Your task to perform on an android device: Open Reddit.com Image 0: 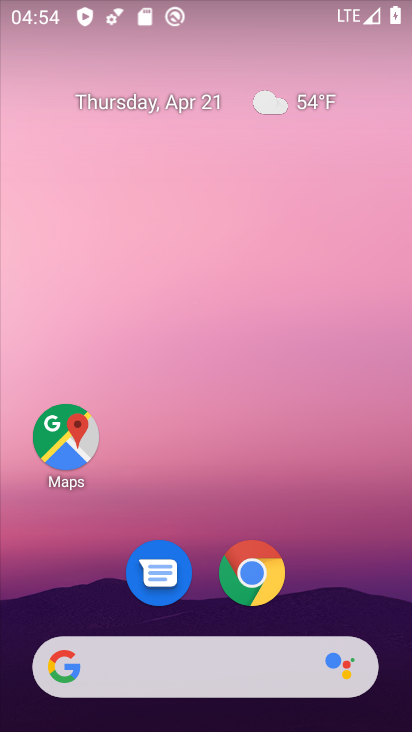
Step 0: click (250, 571)
Your task to perform on an android device: Open Reddit.com Image 1: 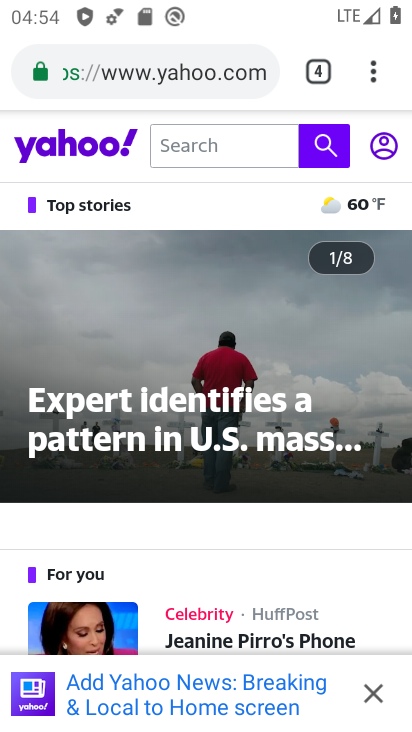
Step 1: click (148, 71)
Your task to perform on an android device: Open Reddit.com Image 2: 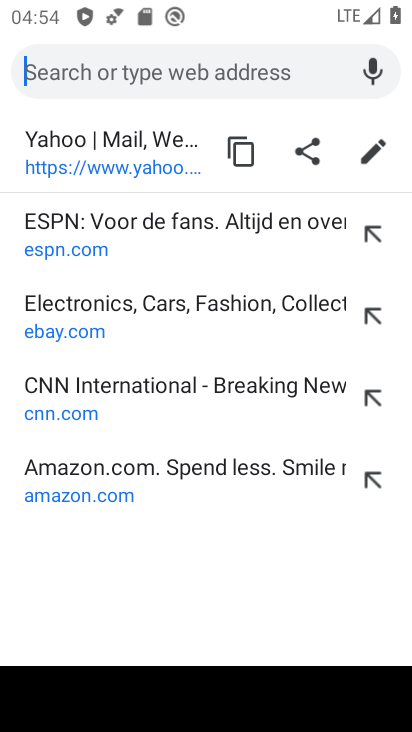
Step 2: type "reddit.com"
Your task to perform on an android device: Open Reddit.com Image 3: 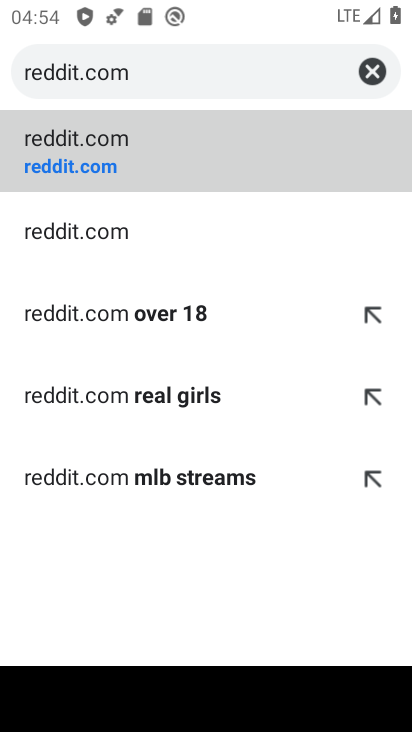
Step 3: click (80, 144)
Your task to perform on an android device: Open Reddit.com Image 4: 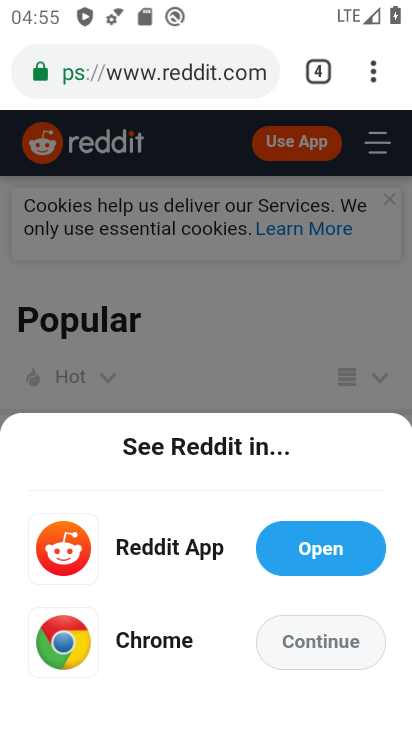
Step 4: task complete